Your task to perform on an android device: Go to network settings Image 0: 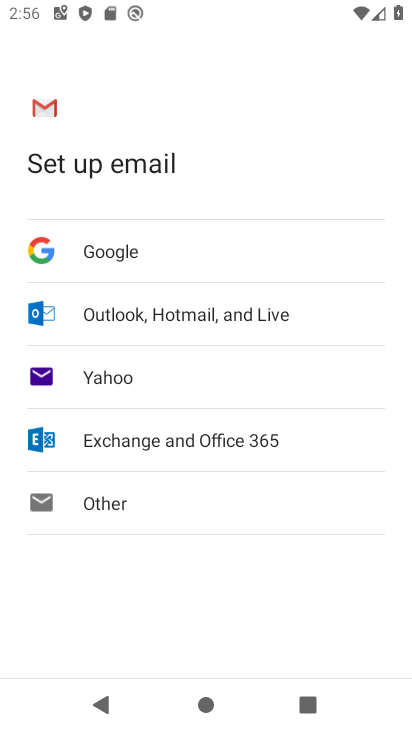
Step 0: press home button
Your task to perform on an android device: Go to network settings Image 1: 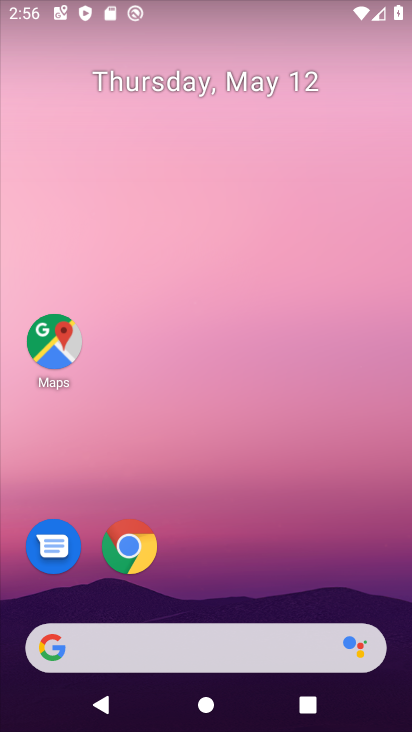
Step 1: drag from (239, 538) to (264, 92)
Your task to perform on an android device: Go to network settings Image 2: 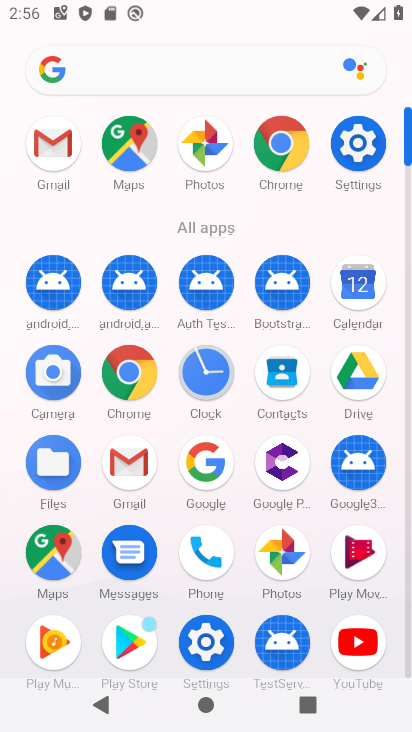
Step 2: click (359, 140)
Your task to perform on an android device: Go to network settings Image 3: 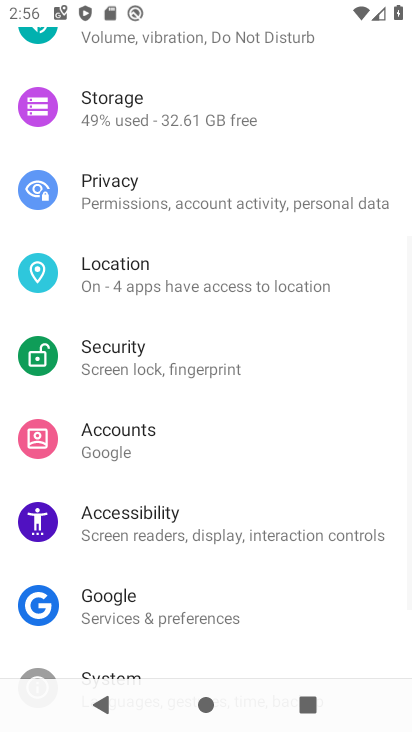
Step 3: drag from (192, 143) to (189, 646)
Your task to perform on an android device: Go to network settings Image 4: 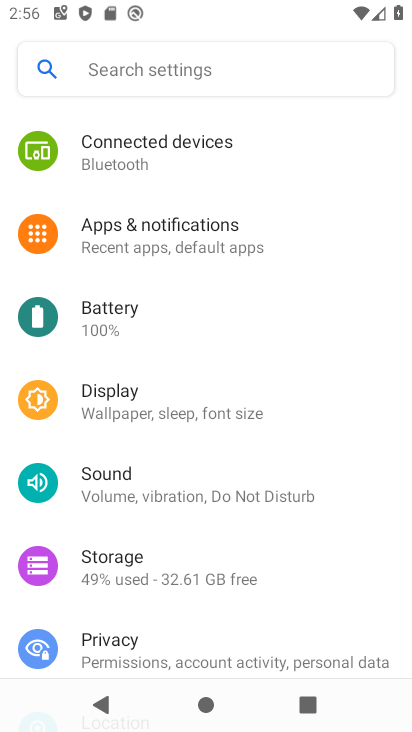
Step 4: drag from (222, 146) to (224, 540)
Your task to perform on an android device: Go to network settings Image 5: 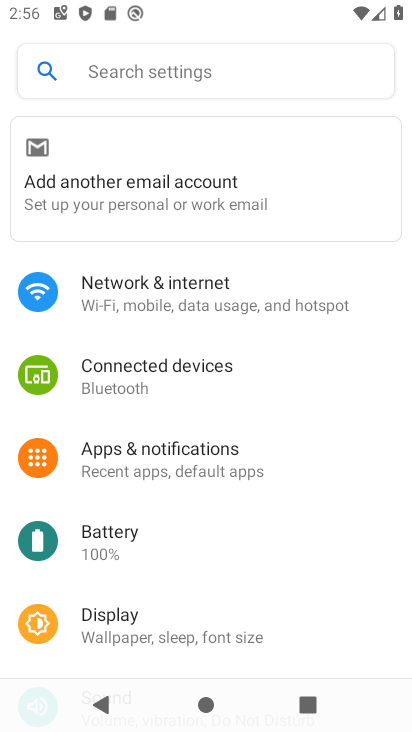
Step 5: click (174, 294)
Your task to perform on an android device: Go to network settings Image 6: 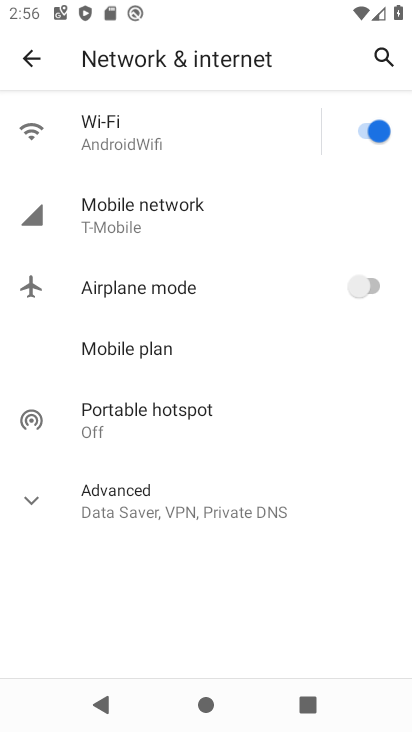
Step 6: task complete